Your task to perform on an android device: Do I have any events tomorrow? Image 0: 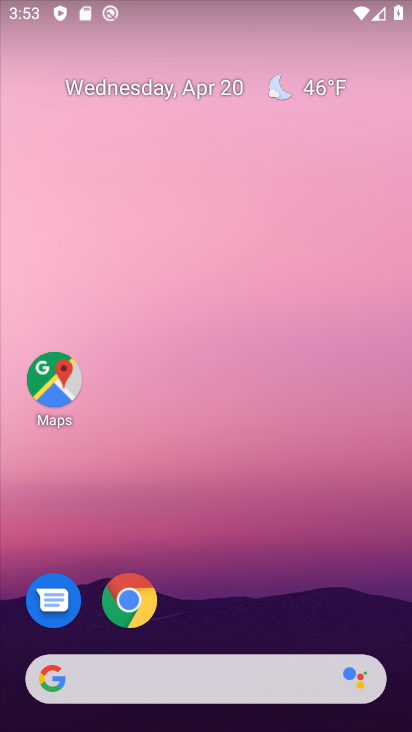
Step 0: drag from (243, 555) to (275, 53)
Your task to perform on an android device: Do I have any events tomorrow? Image 1: 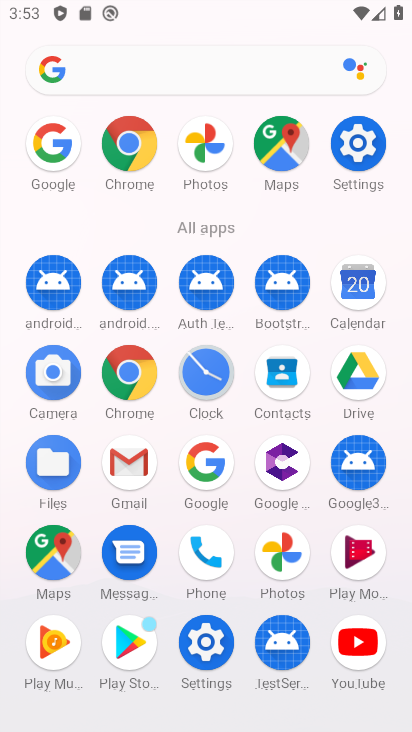
Step 1: click (359, 277)
Your task to perform on an android device: Do I have any events tomorrow? Image 2: 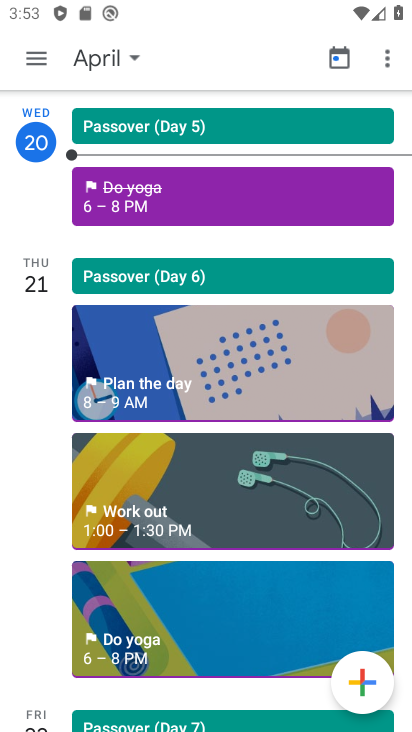
Step 2: click (26, 282)
Your task to perform on an android device: Do I have any events tomorrow? Image 3: 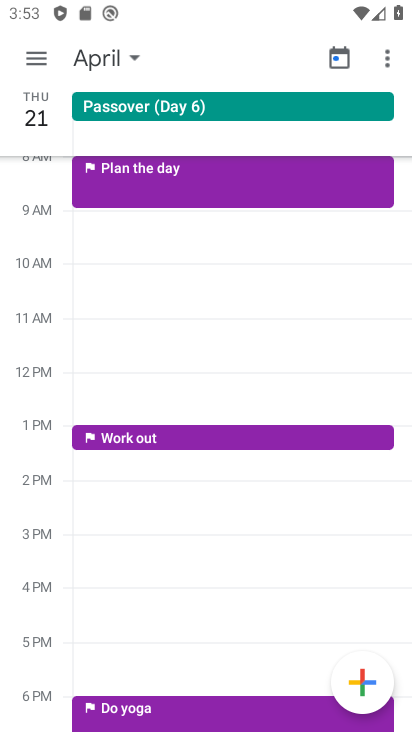
Step 3: task complete